Your task to perform on an android device: turn off airplane mode Image 0: 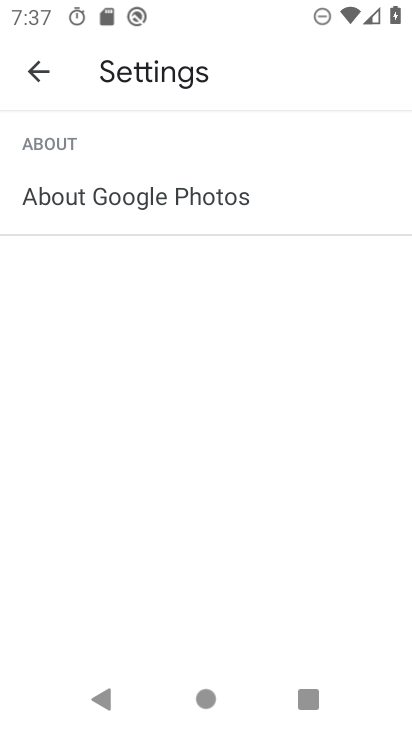
Step 0: press home button
Your task to perform on an android device: turn off airplane mode Image 1: 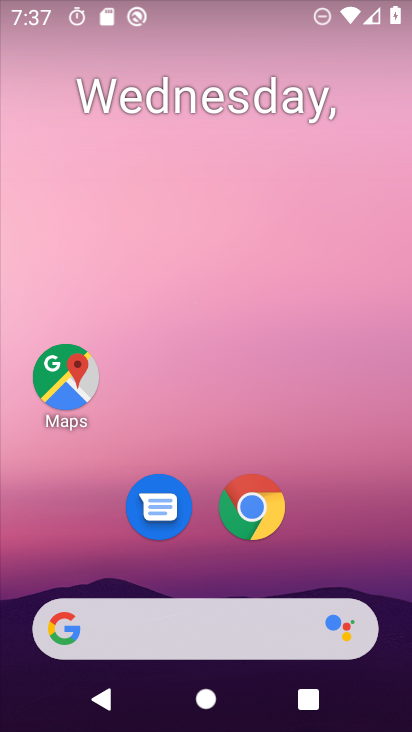
Step 1: drag from (281, 660) to (237, 264)
Your task to perform on an android device: turn off airplane mode Image 2: 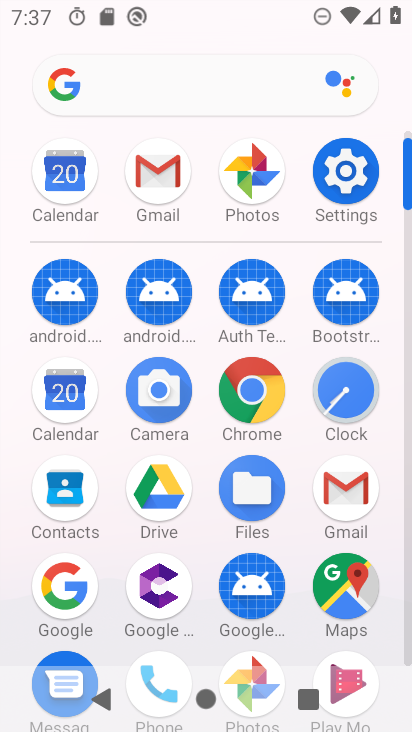
Step 2: click (321, 165)
Your task to perform on an android device: turn off airplane mode Image 3: 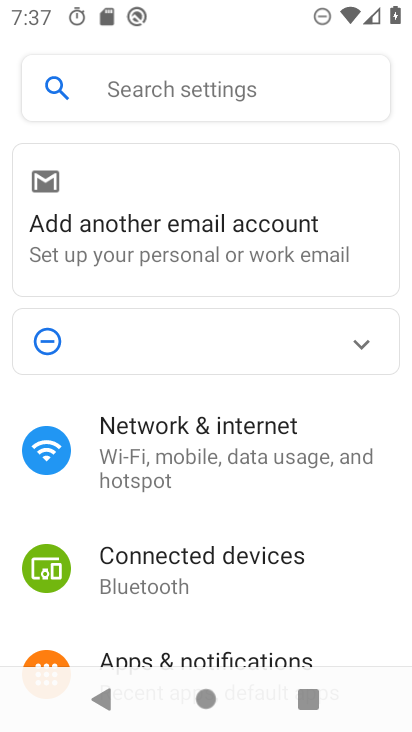
Step 3: click (209, 441)
Your task to perform on an android device: turn off airplane mode Image 4: 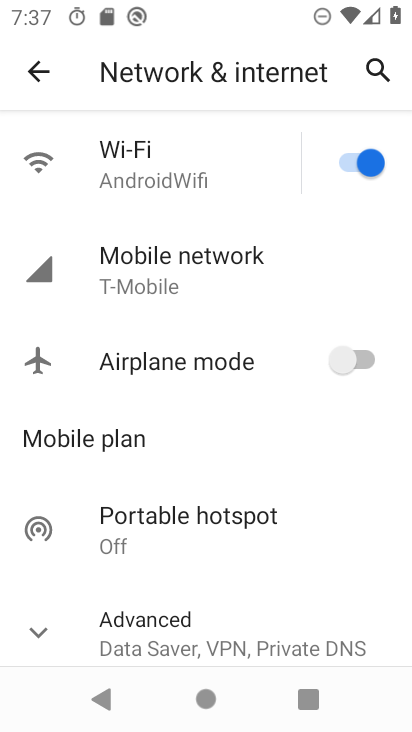
Step 4: click (181, 366)
Your task to perform on an android device: turn off airplane mode Image 5: 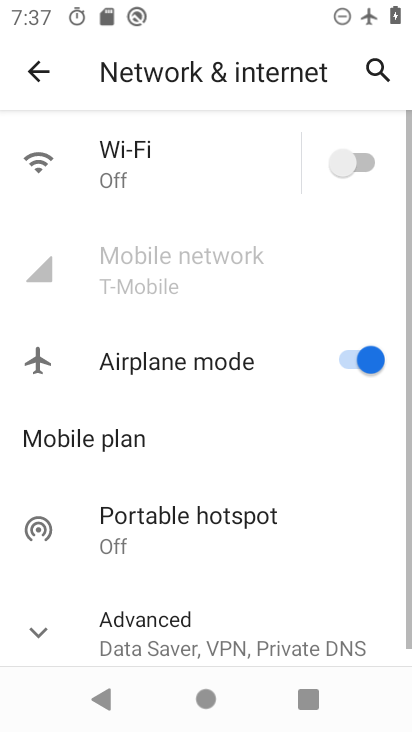
Step 5: click (181, 366)
Your task to perform on an android device: turn off airplane mode Image 6: 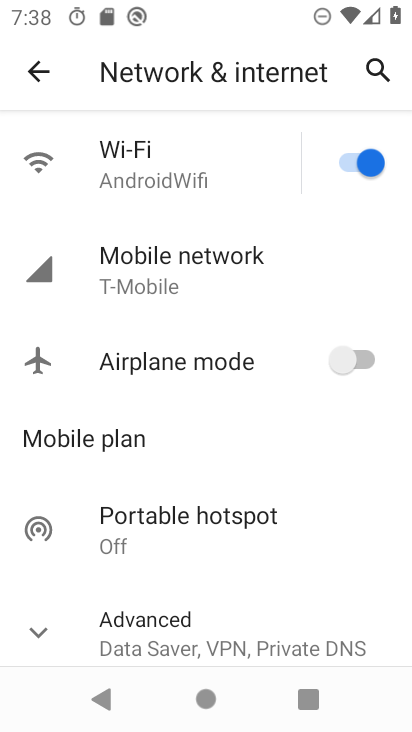
Step 6: task complete